Your task to perform on an android device: change keyboard looks Image 0: 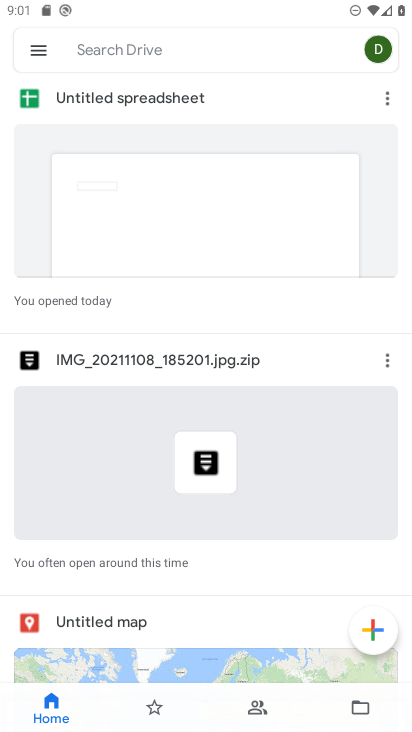
Step 0: press back button
Your task to perform on an android device: change keyboard looks Image 1: 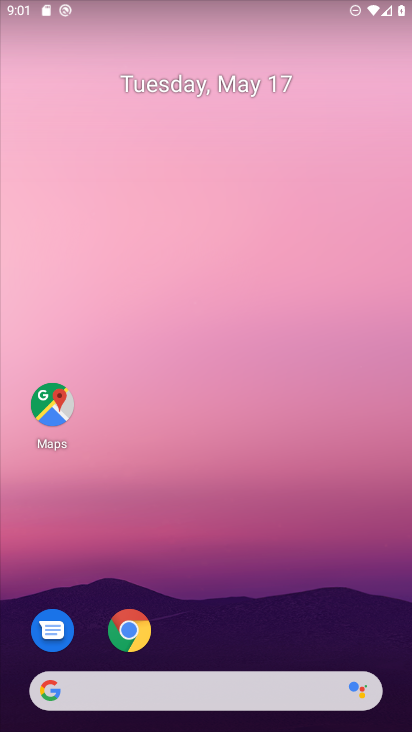
Step 1: drag from (362, 601) to (362, 124)
Your task to perform on an android device: change keyboard looks Image 2: 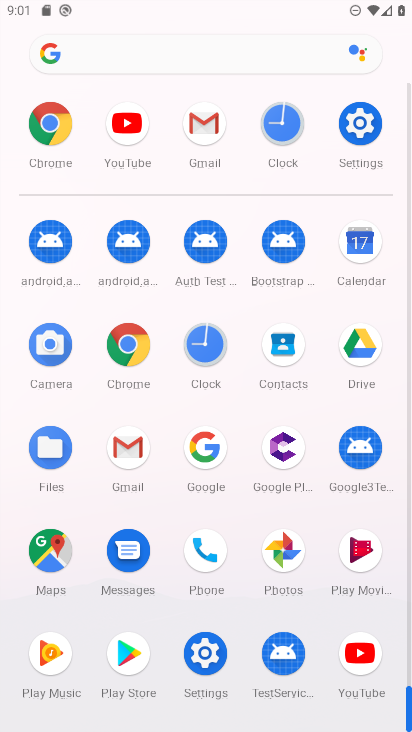
Step 2: click (372, 149)
Your task to perform on an android device: change keyboard looks Image 3: 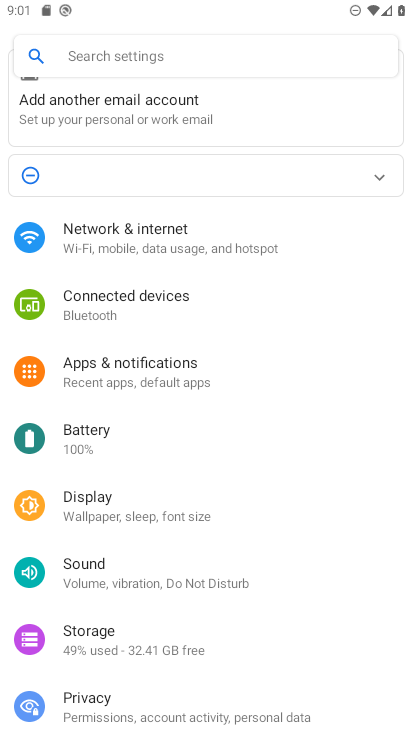
Step 3: drag from (343, 600) to (337, 425)
Your task to perform on an android device: change keyboard looks Image 4: 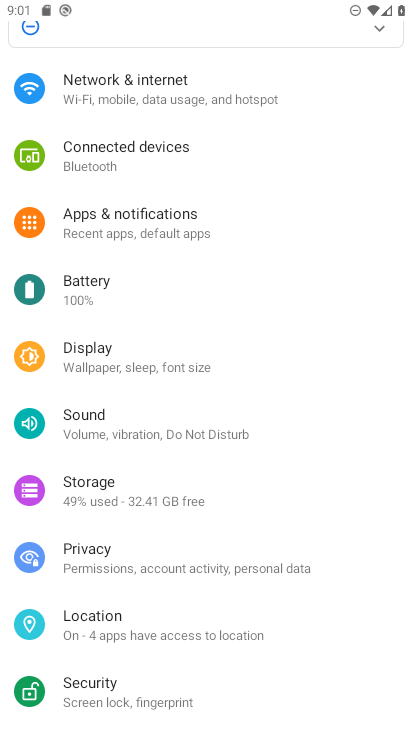
Step 4: drag from (341, 647) to (350, 498)
Your task to perform on an android device: change keyboard looks Image 5: 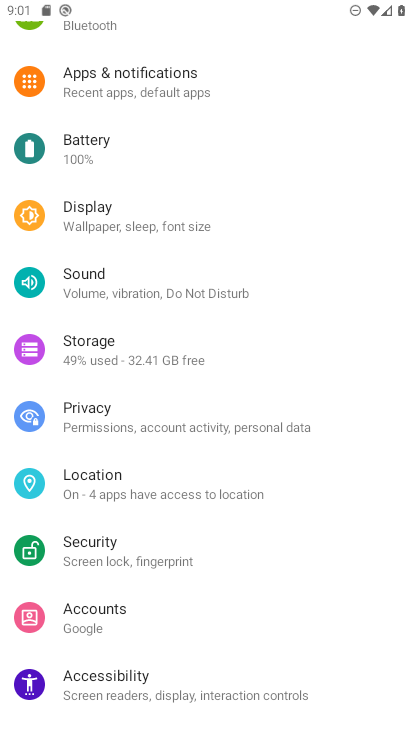
Step 5: drag from (343, 653) to (353, 544)
Your task to perform on an android device: change keyboard looks Image 6: 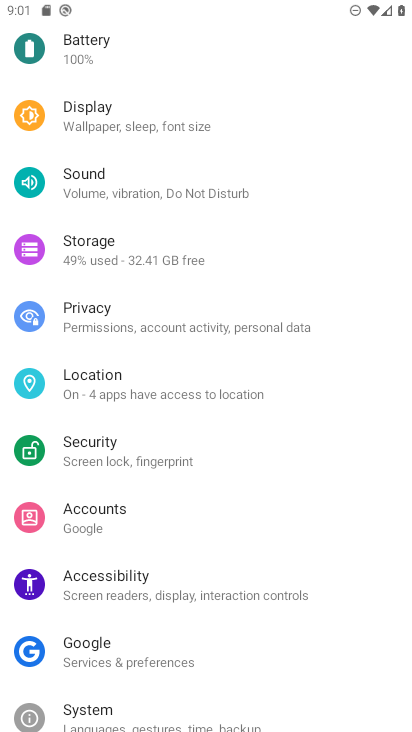
Step 6: drag from (340, 659) to (350, 538)
Your task to perform on an android device: change keyboard looks Image 7: 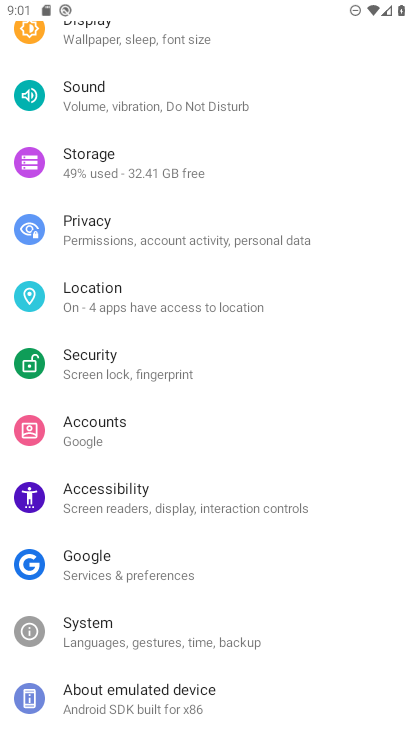
Step 7: drag from (338, 664) to (341, 533)
Your task to perform on an android device: change keyboard looks Image 8: 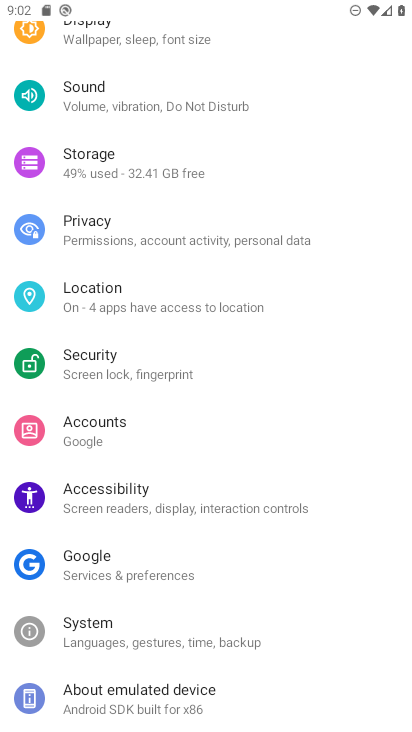
Step 8: click (220, 639)
Your task to perform on an android device: change keyboard looks Image 9: 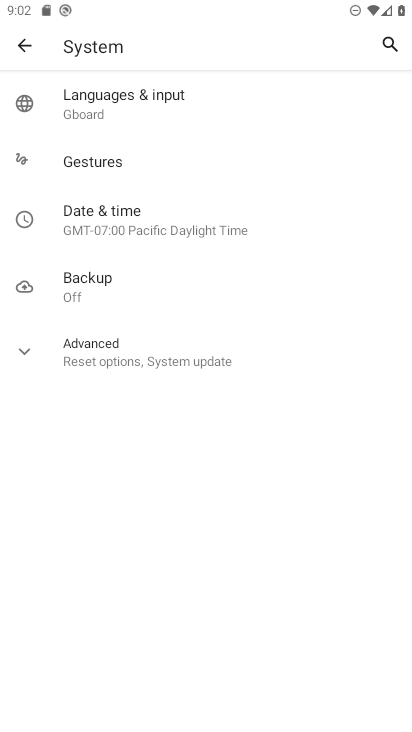
Step 9: click (126, 116)
Your task to perform on an android device: change keyboard looks Image 10: 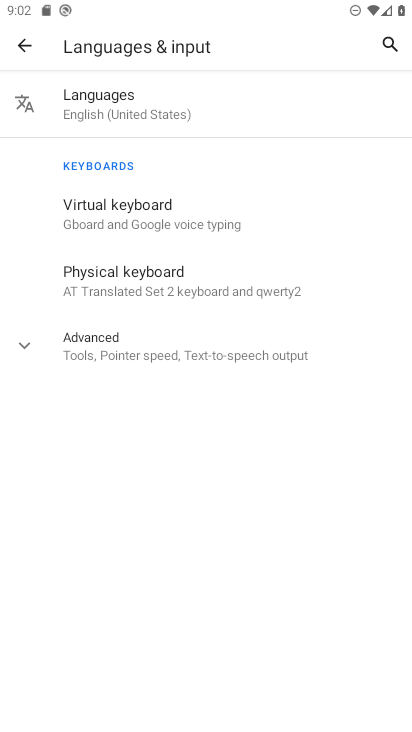
Step 10: click (180, 201)
Your task to perform on an android device: change keyboard looks Image 11: 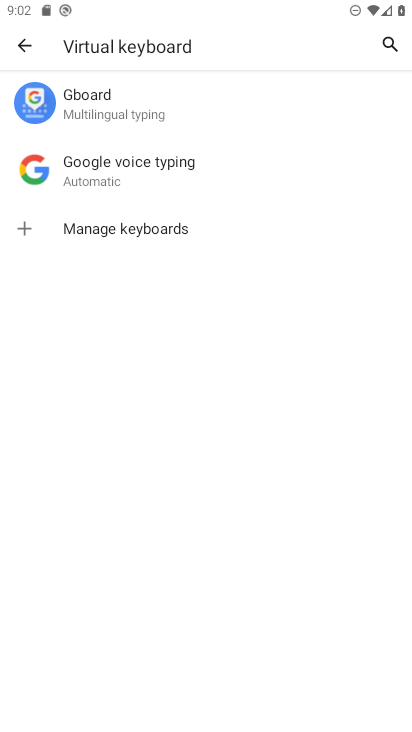
Step 11: click (102, 108)
Your task to perform on an android device: change keyboard looks Image 12: 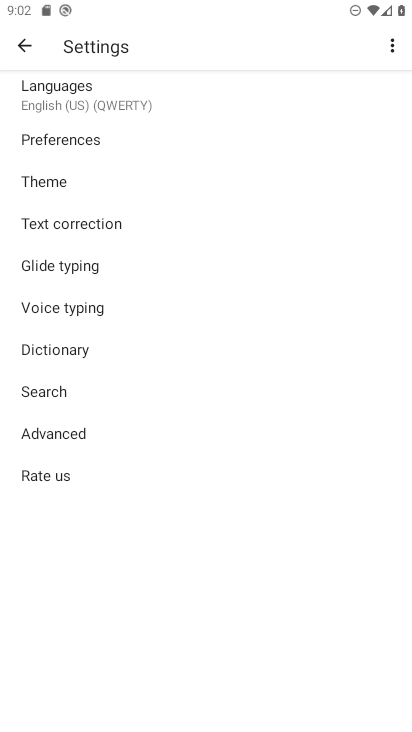
Step 12: click (56, 179)
Your task to perform on an android device: change keyboard looks Image 13: 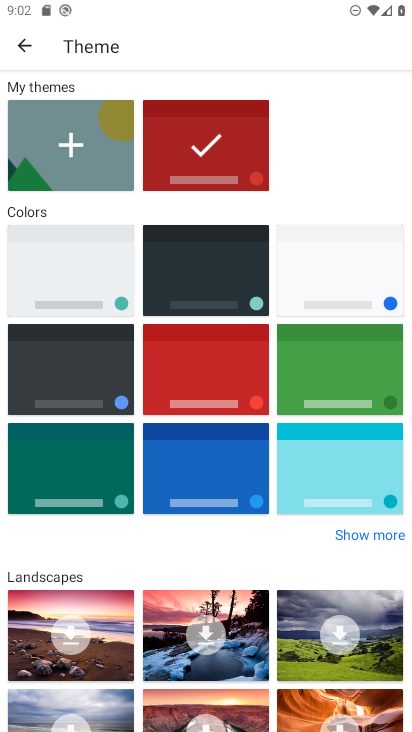
Step 13: click (71, 271)
Your task to perform on an android device: change keyboard looks Image 14: 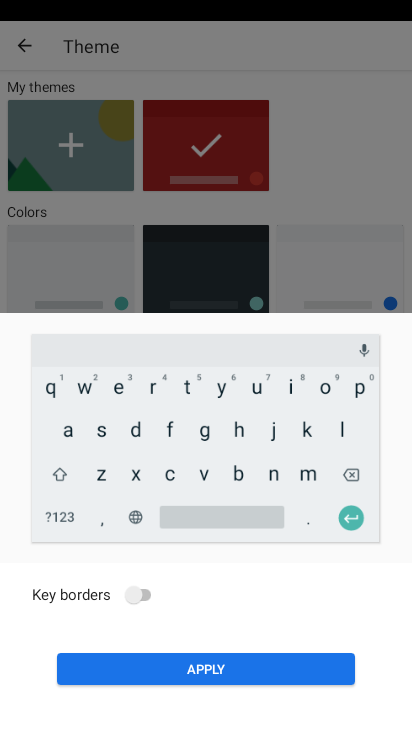
Step 14: click (217, 672)
Your task to perform on an android device: change keyboard looks Image 15: 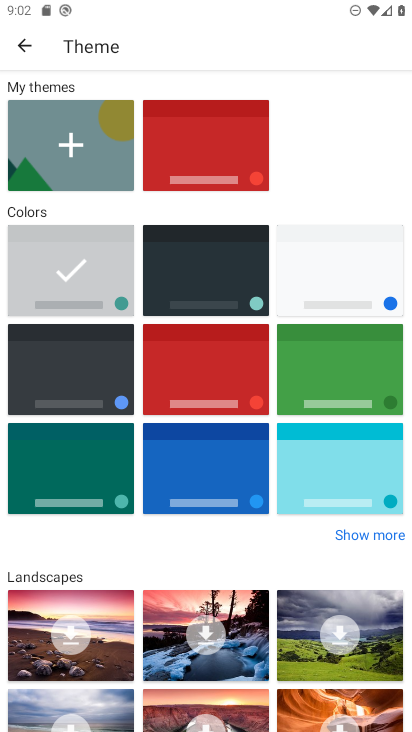
Step 15: task complete